Your task to perform on an android device: turn off location Image 0: 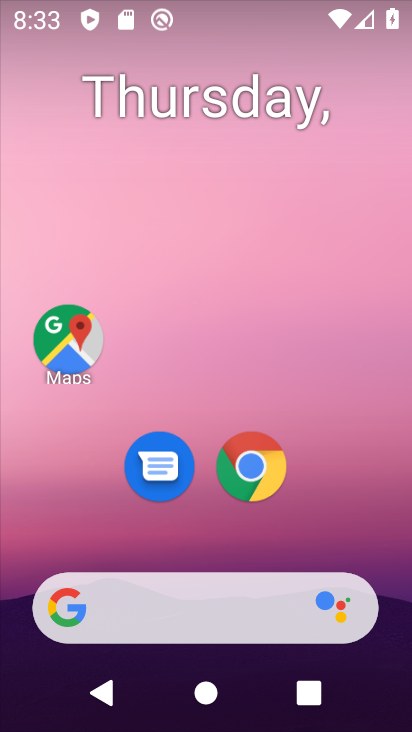
Step 0: press home button
Your task to perform on an android device: turn off location Image 1: 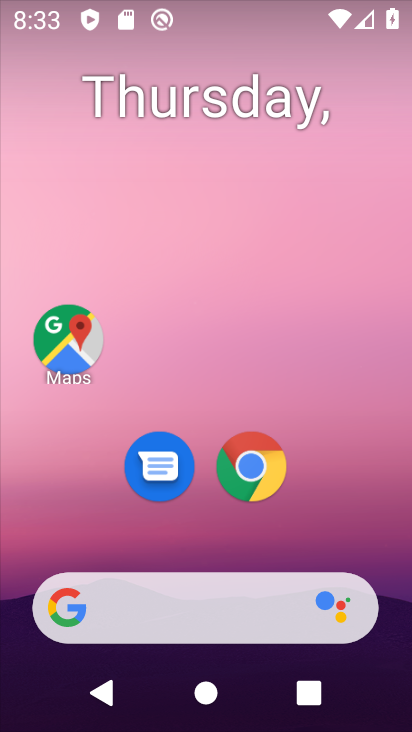
Step 1: drag from (159, 613) to (296, 96)
Your task to perform on an android device: turn off location Image 2: 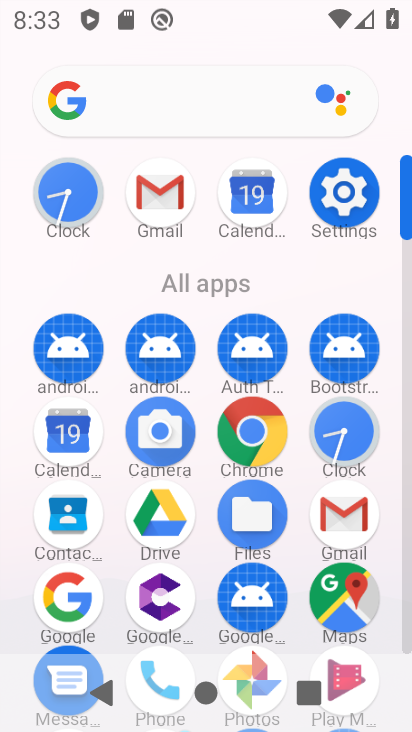
Step 2: click (346, 202)
Your task to perform on an android device: turn off location Image 3: 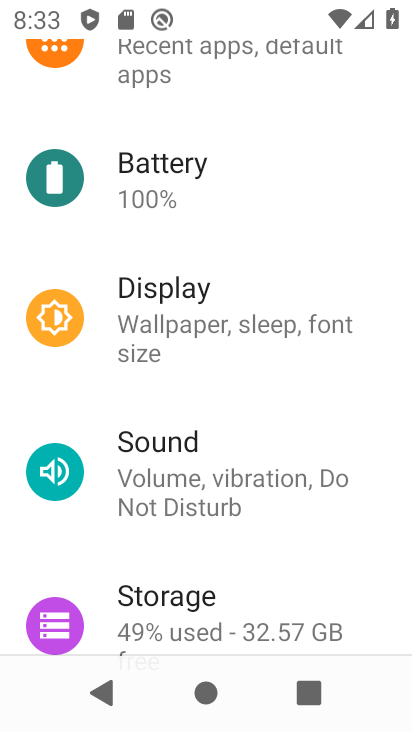
Step 3: drag from (239, 573) to (328, 170)
Your task to perform on an android device: turn off location Image 4: 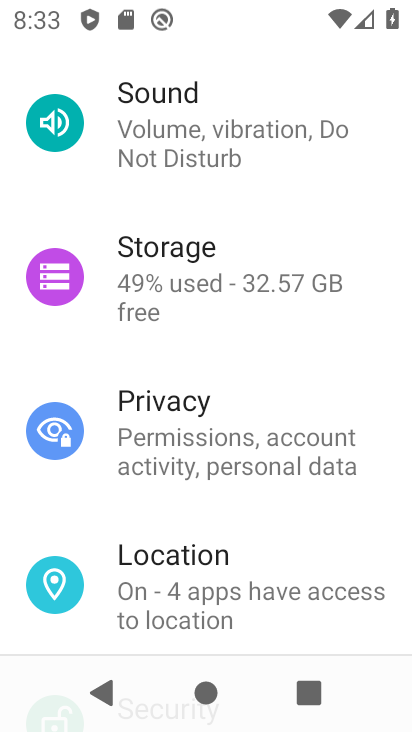
Step 4: click (202, 567)
Your task to perform on an android device: turn off location Image 5: 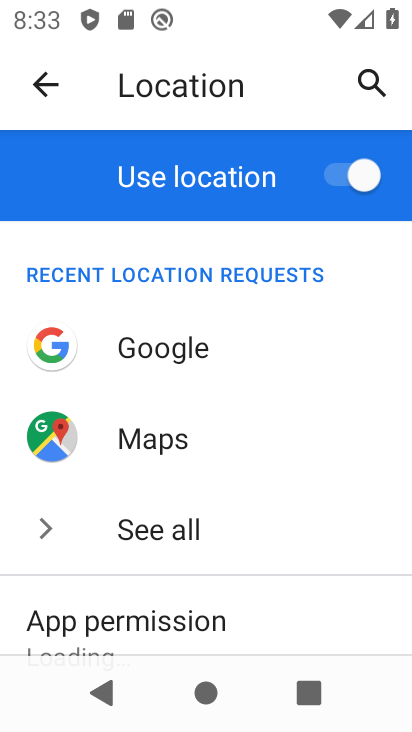
Step 5: click (341, 174)
Your task to perform on an android device: turn off location Image 6: 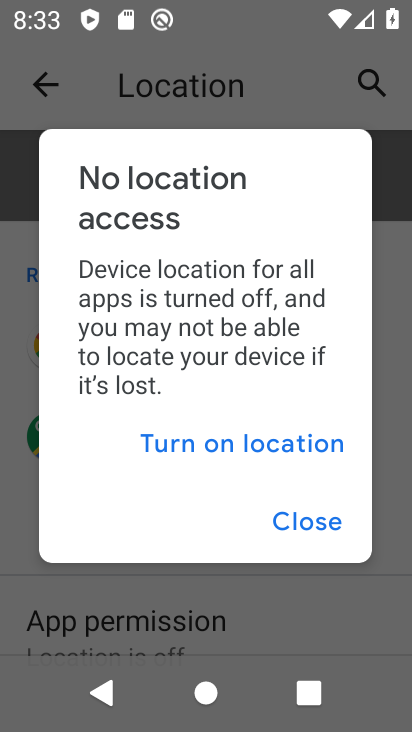
Step 6: click (317, 530)
Your task to perform on an android device: turn off location Image 7: 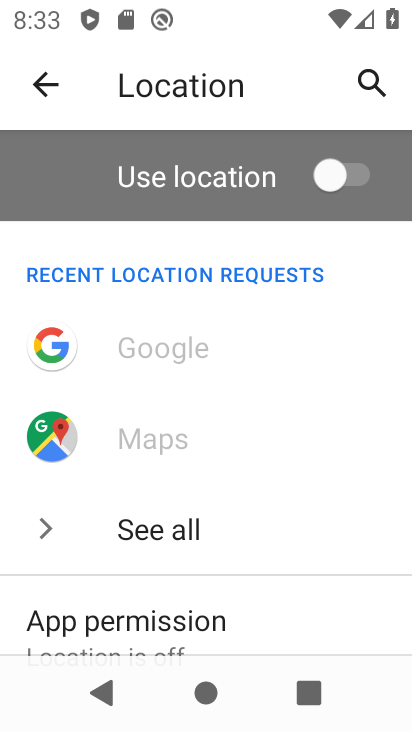
Step 7: task complete